Your task to perform on an android device: Is it going to rain this weekend? Image 0: 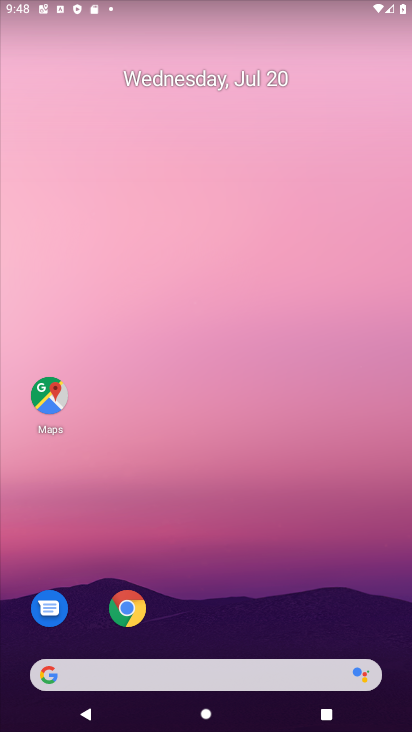
Step 0: drag from (268, 577) to (281, 56)
Your task to perform on an android device: Is it going to rain this weekend? Image 1: 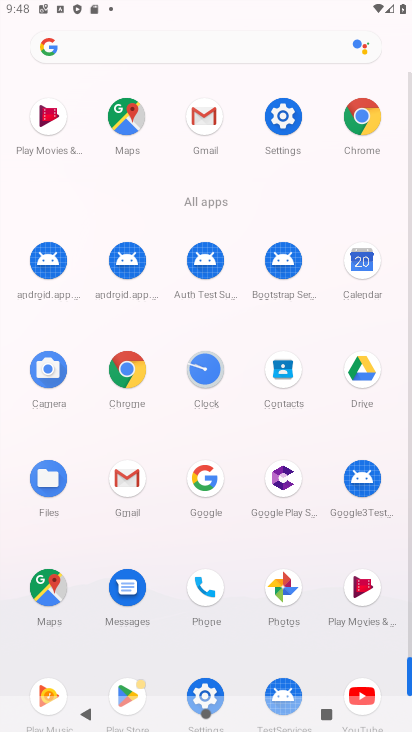
Step 1: click (137, 383)
Your task to perform on an android device: Is it going to rain this weekend? Image 2: 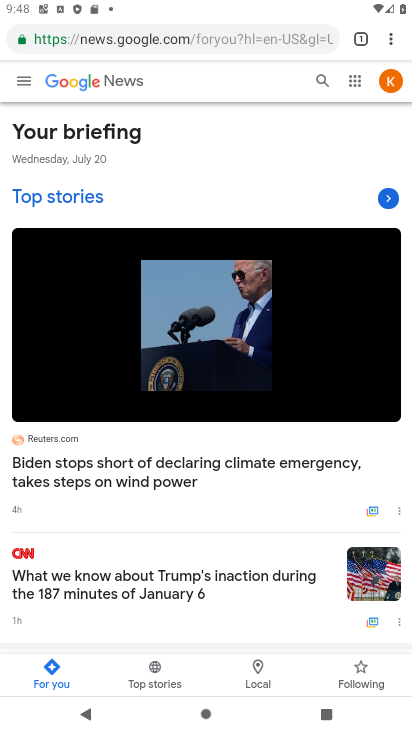
Step 2: click (369, 43)
Your task to perform on an android device: Is it going to rain this weekend? Image 3: 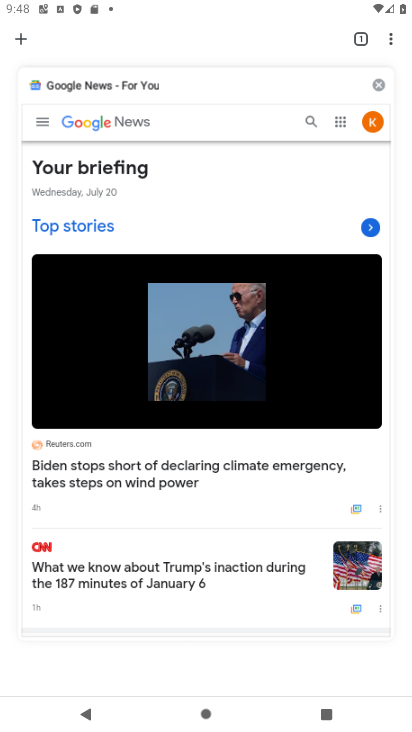
Step 3: click (23, 40)
Your task to perform on an android device: Is it going to rain this weekend? Image 4: 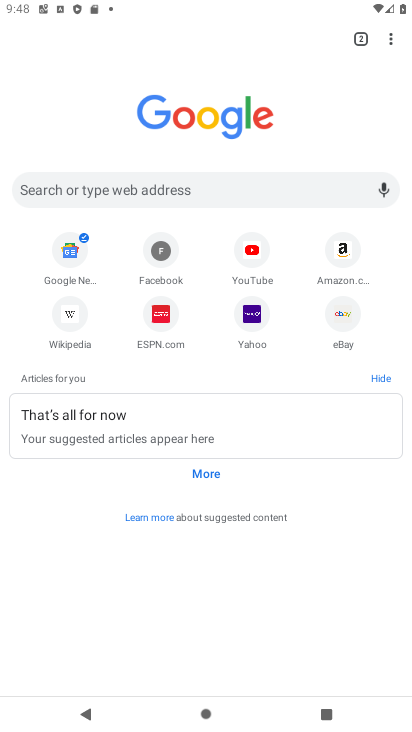
Step 4: click (163, 181)
Your task to perform on an android device: Is it going to rain this weekend? Image 5: 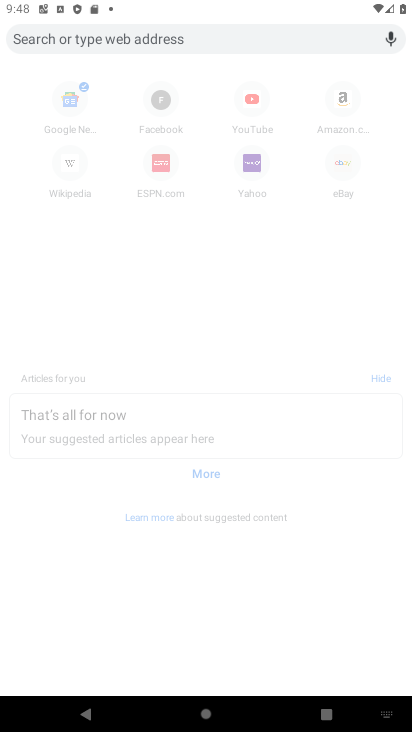
Step 5: type "weather"
Your task to perform on an android device: Is it going to rain this weekend? Image 6: 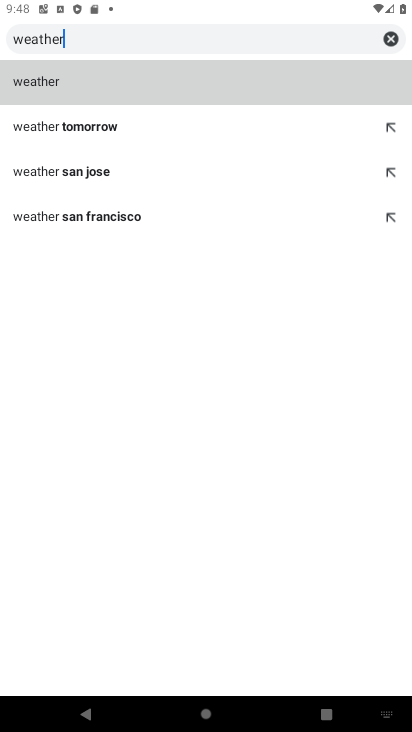
Step 6: click (106, 98)
Your task to perform on an android device: Is it going to rain this weekend? Image 7: 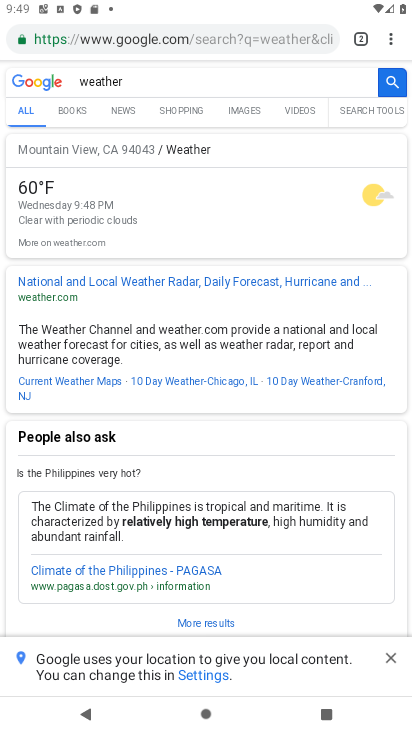
Step 7: click (82, 218)
Your task to perform on an android device: Is it going to rain this weekend? Image 8: 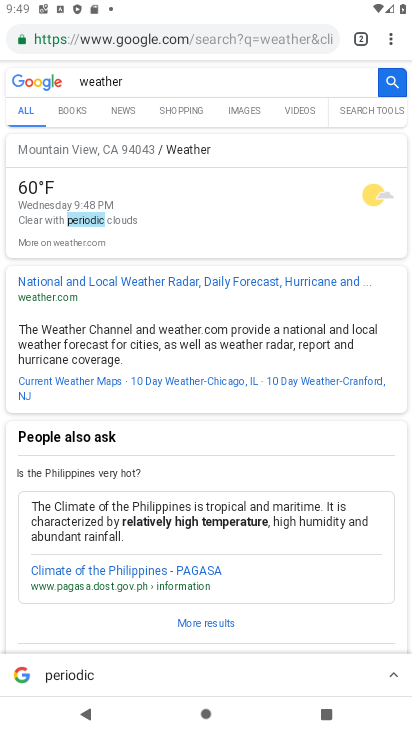
Step 8: click (149, 154)
Your task to perform on an android device: Is it going to rain this weekend? Image 9: 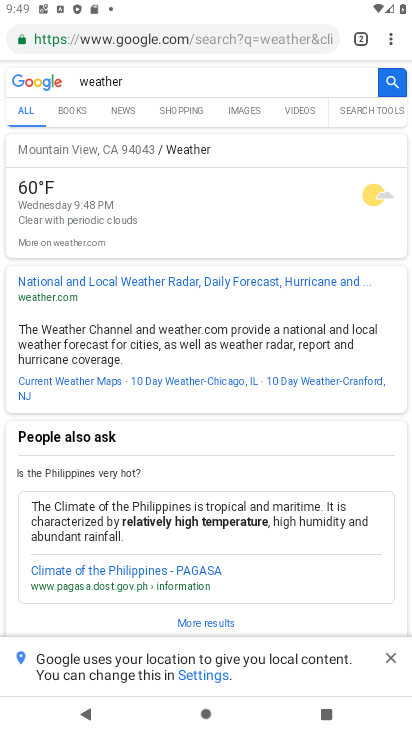
Step 9: click (72, 242)
Your task to perform on an android device: Is it going to rain this weekend? Image 10: 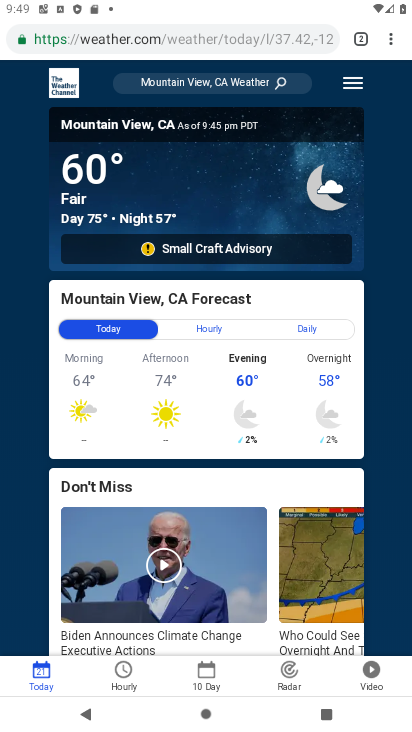
Step 10: drag from (351, 503) to (313, 142)
Your task to perform on an android device: Is it going to rain this weekend? Image 11: 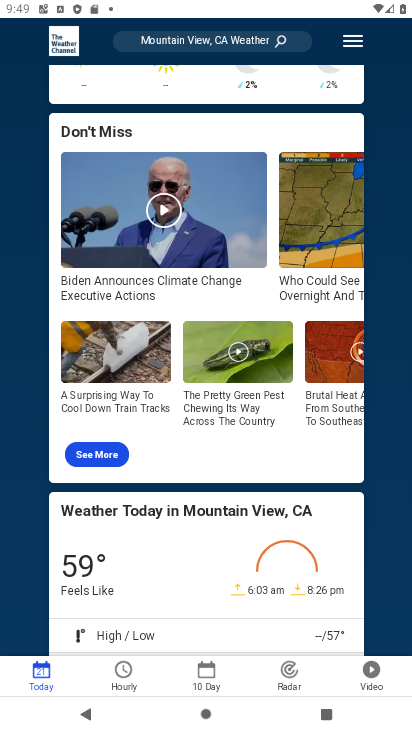
Step 11: click (211, 673)
Your task to perform on an android device: Is it going to rain this weekend? Image 12: 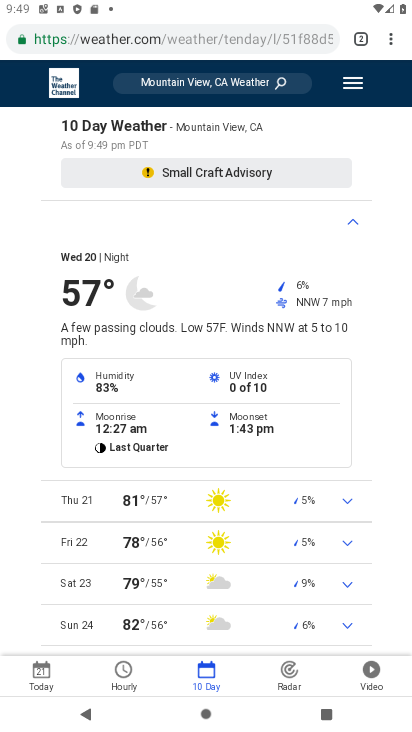
Step 12: task complete